Your task to perform on an android device: check google app version Image 0: 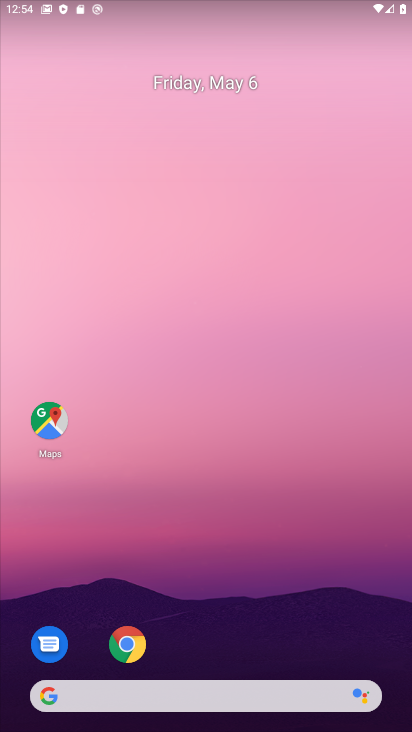
Step 0: drag from (362, 627) to (341, 130)
Your task to perform on an android device: check google app version Image 1: 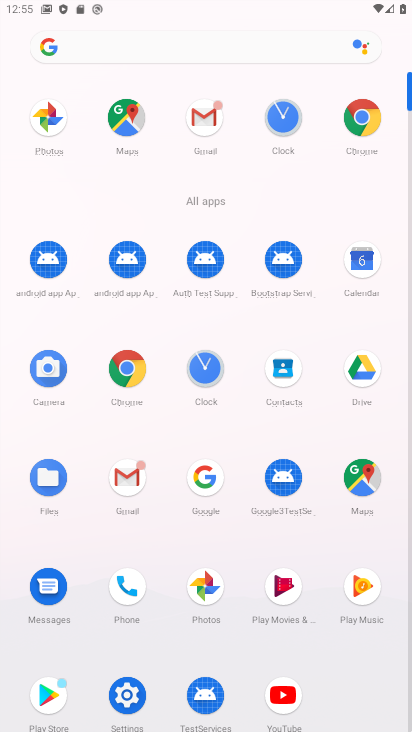
Step 1: click (203, 479)
Your task to perform on an android device: check google app version Image 2: 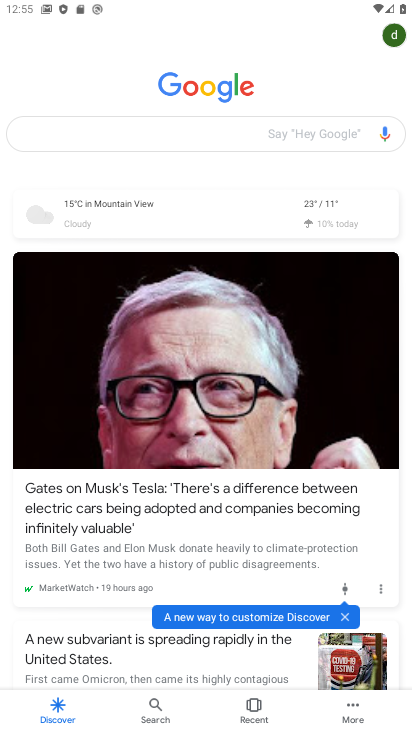
Step 2: click (354, 716)
Your task to perform on an android device: check google app version Image 3: 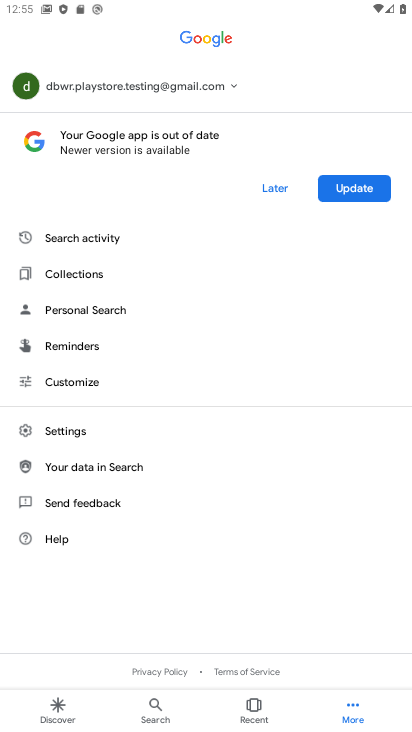
Step 3: click (73, 433)
Your task to perform on an android device: check google app version Image 4: 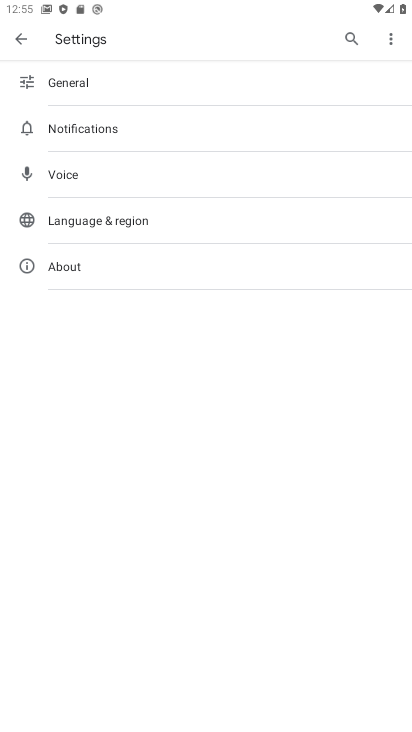
Step 4: click (90, 261)
Your task to perform on an android device: check google app version Image 5: 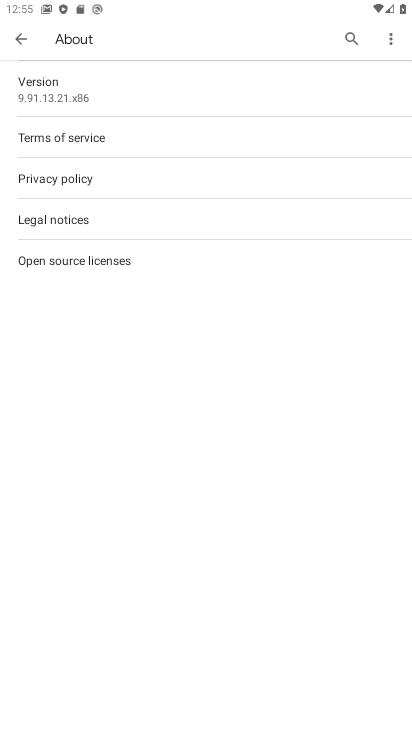
Step 5: task complete